Your task to perform on an android device: clear all cookies in the chrome app Image 0: 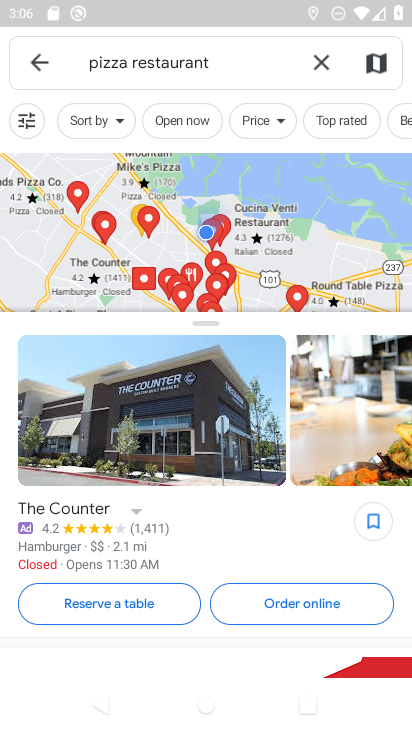
Step 0: press back button
Your task to perform on an android device: clear all cookies in the chrome app Image 1: 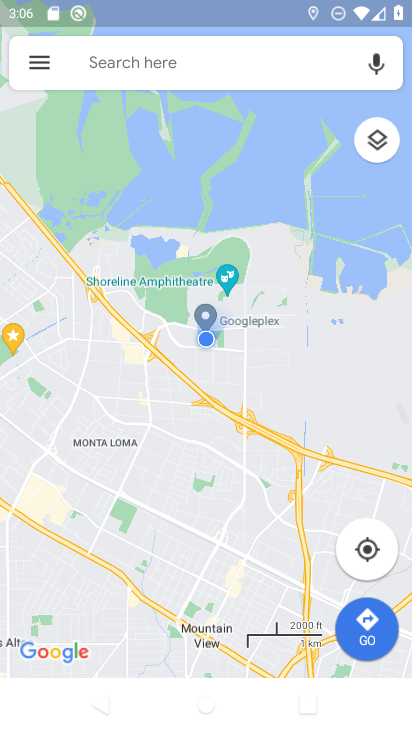
Step 1: press home button
Your task to perform on an android device: clear all cookies in the chrome app Image 2: 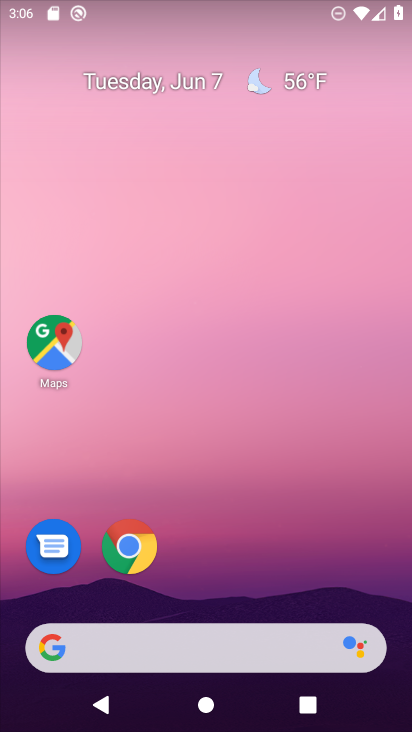
Step 2: drag from (246, 551) to (218, 32)
Your task to perform on an android device: clear all cookies in the chrome app Image 3: 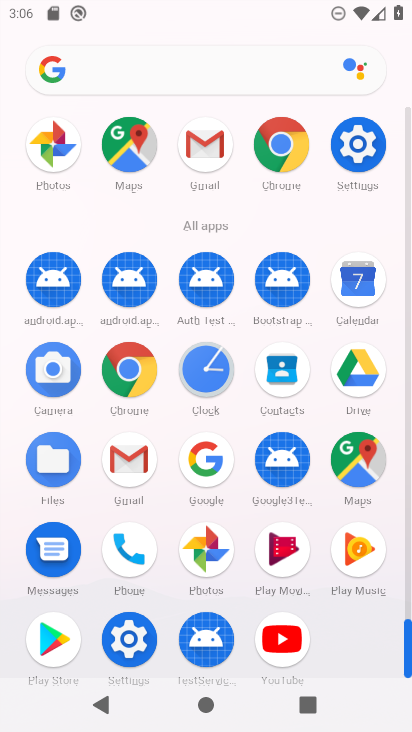
Step 3: click (132, 366)
Your task to perform on an android device: clear all cookies in the chrome app Image 4: 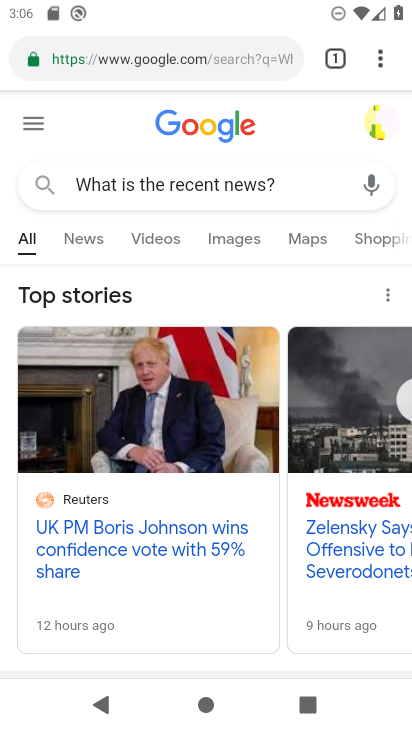
Step 4: drag from (379, 58) to (208, 561)
Your task to perform on an android device: clear all cookies in the chrome app Image 5: 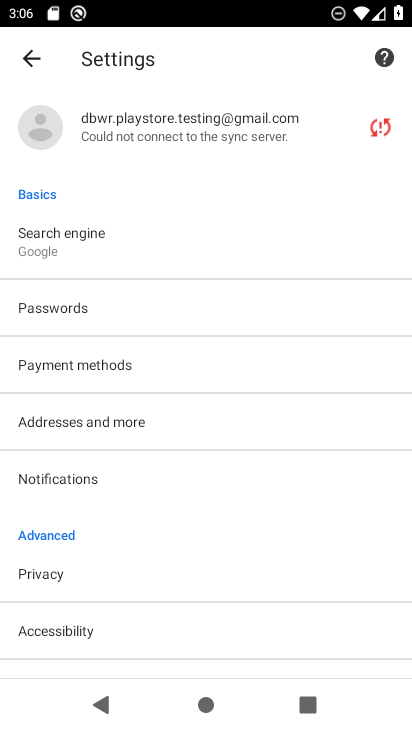
Step 5: click (92, 560)
Your task to perform on an android device: clear all cookies in the chrome app Image 6: 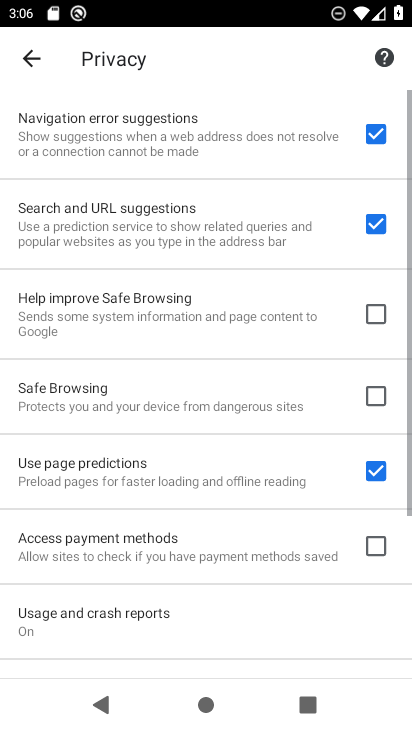
Step 6: drag from (193, 604) to (176, 130)
Your task to perform on an android device: clear all cookies in the chrome app Image 7: 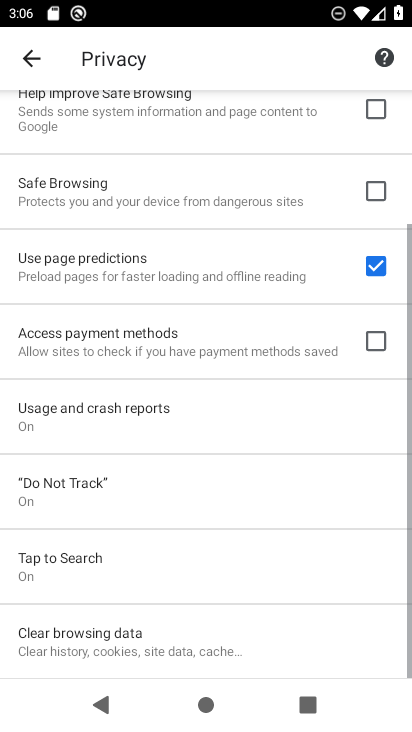
Step 7: click (141, 654)
Your task to perform on an android device: clear all cookies in the chrome app Image 8: 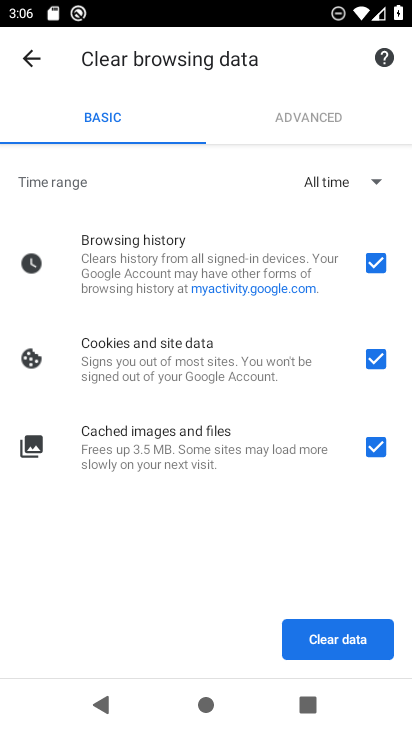
Step 8: click (371, 261)
Your task to perform on an android device: clear all cookies in the chrome app Image 9: 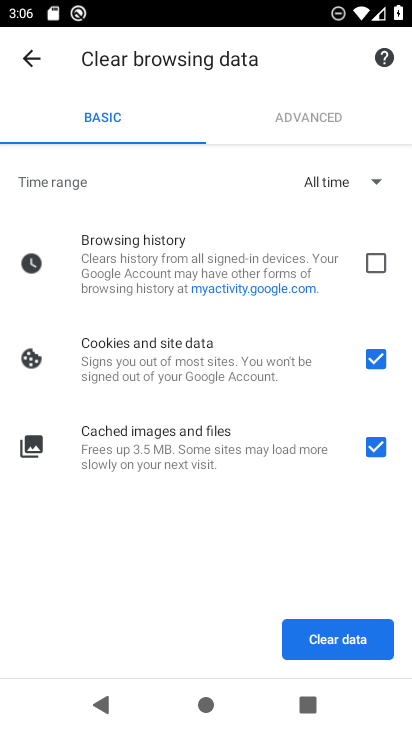
Step 9: click (376, 448)
Your task to perform on an android device: clear all cookies in the chrome app Image 10: 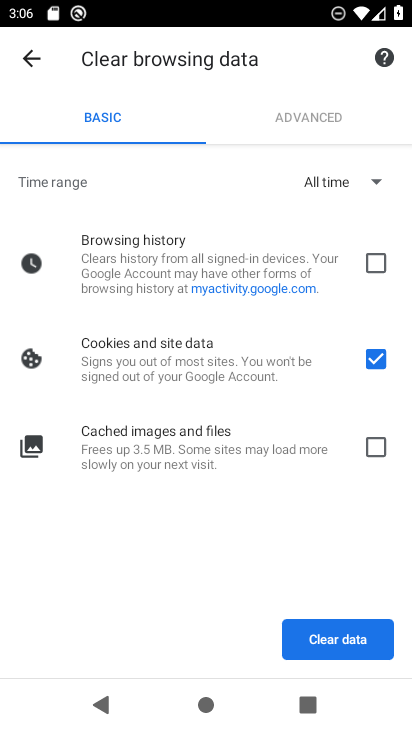
Step 10: click (328, 651)
Your task to perform on an android device: clear all cookies in the chrome app Image 11: 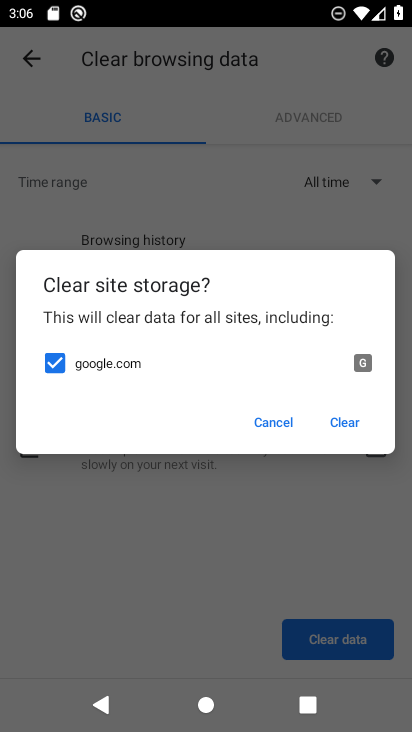
Step 11: click (341, 414)
Your task to perform on an android device: clear all cookies in the chrome app Image 12: 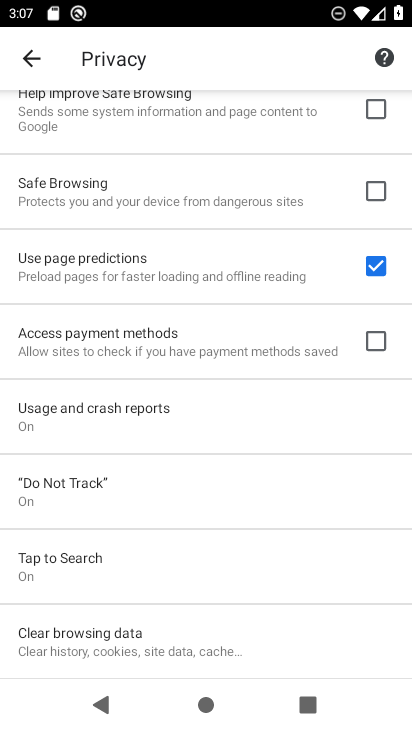
Step 12: task complete